Your task to perform on an android device: change the clock display to analog Image 0: 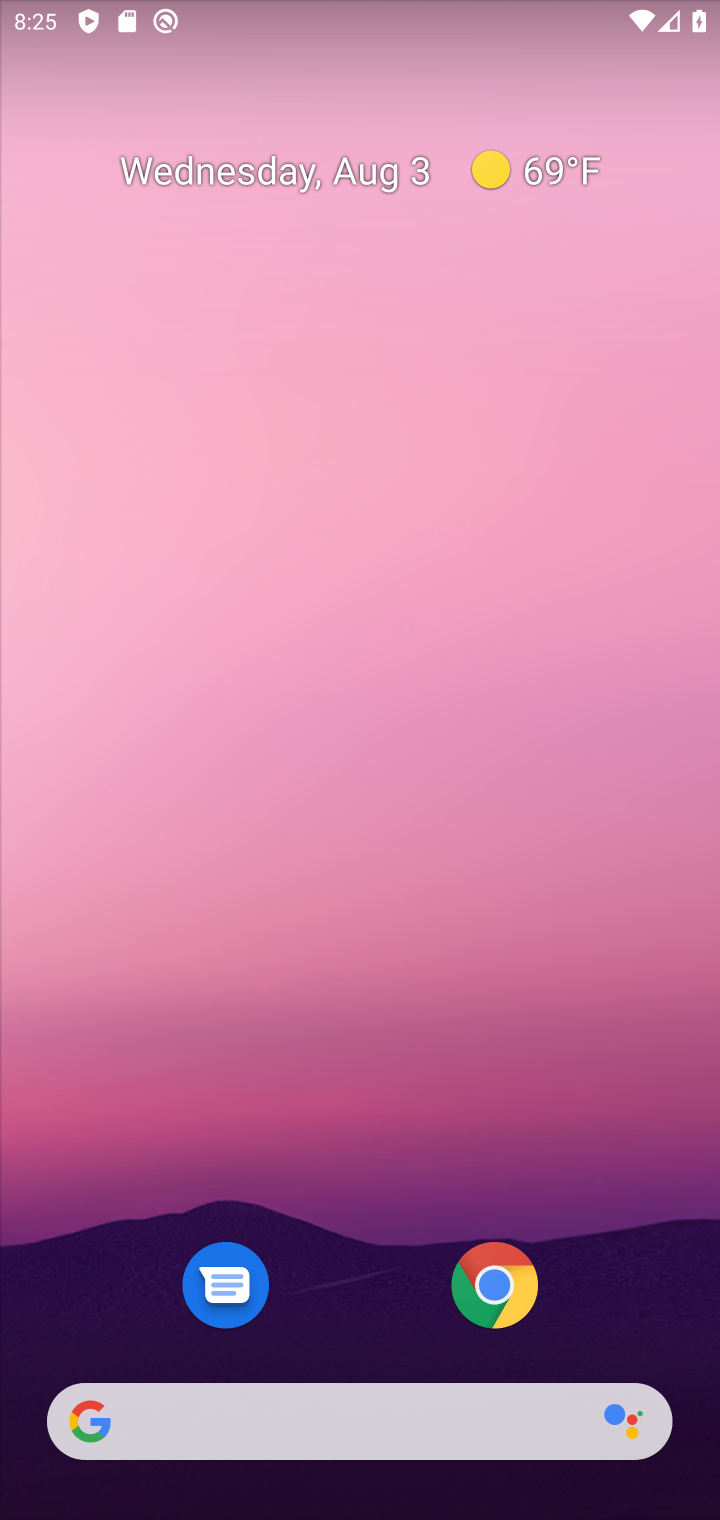
Step 0: drag from (658, 1225) to (539, 330)
Your task to perform on an android device: change the clock display to analog Image 1: 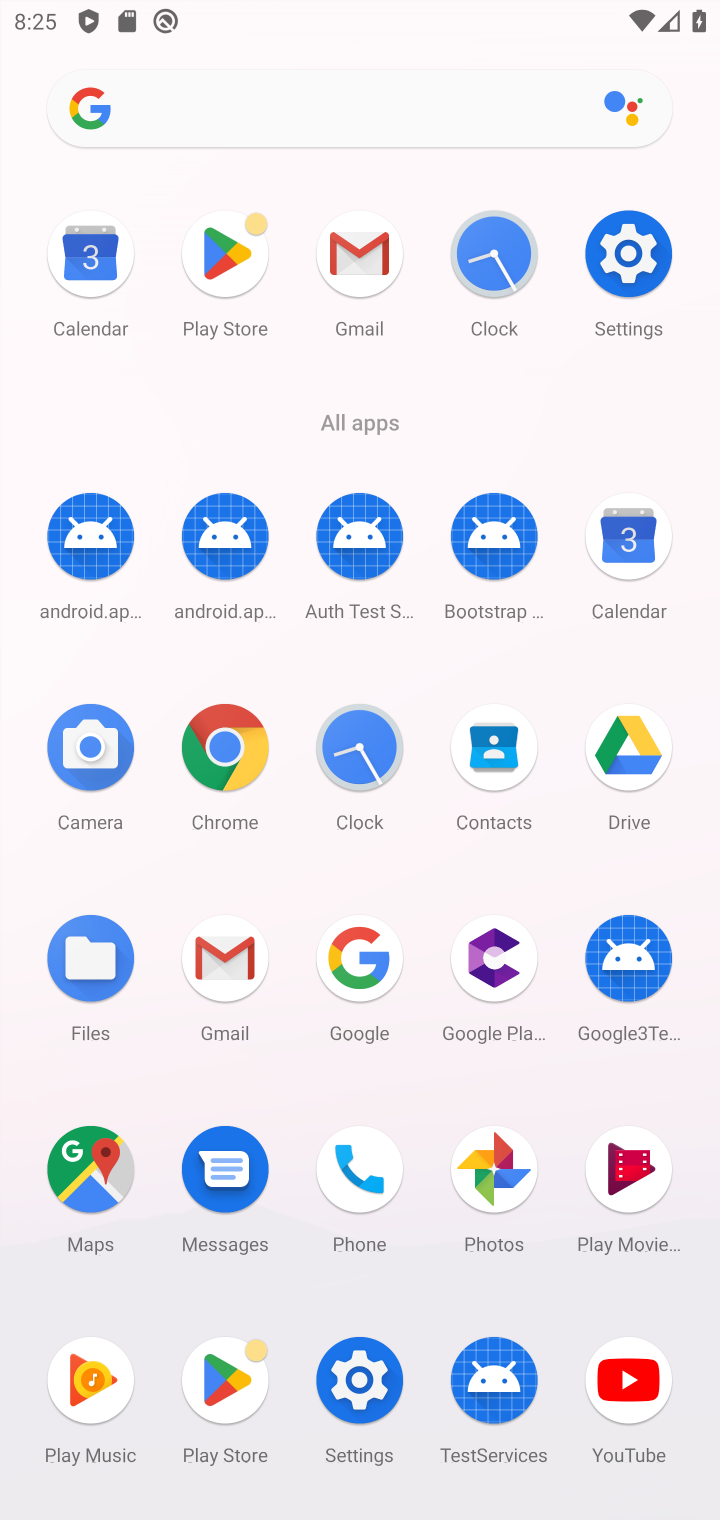
Step 1: click (506, 272)
Your task to perform on an android device: change the clock display to analog Image 2: 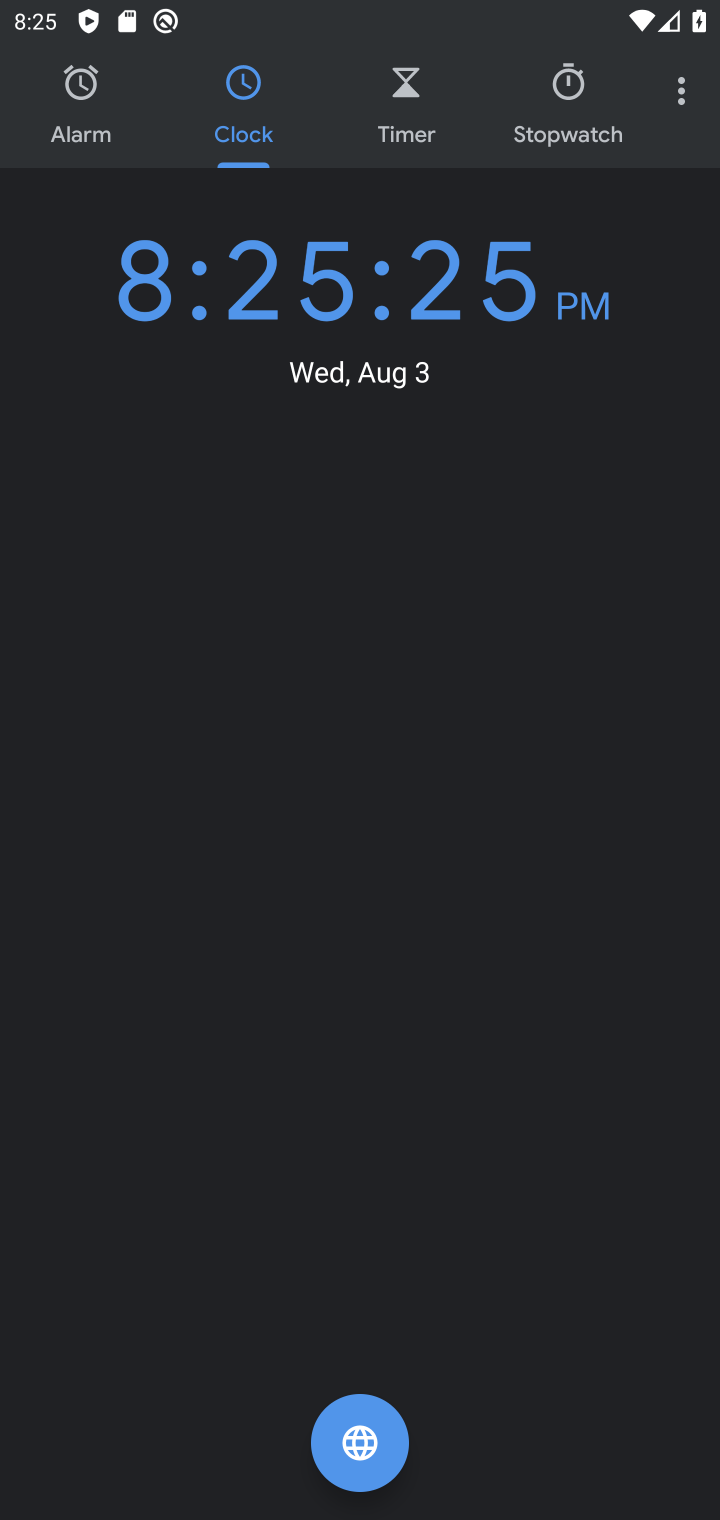
Step 2: click (709, 89)
Your task to perform on an android device: change the clock display to analog Image 3: 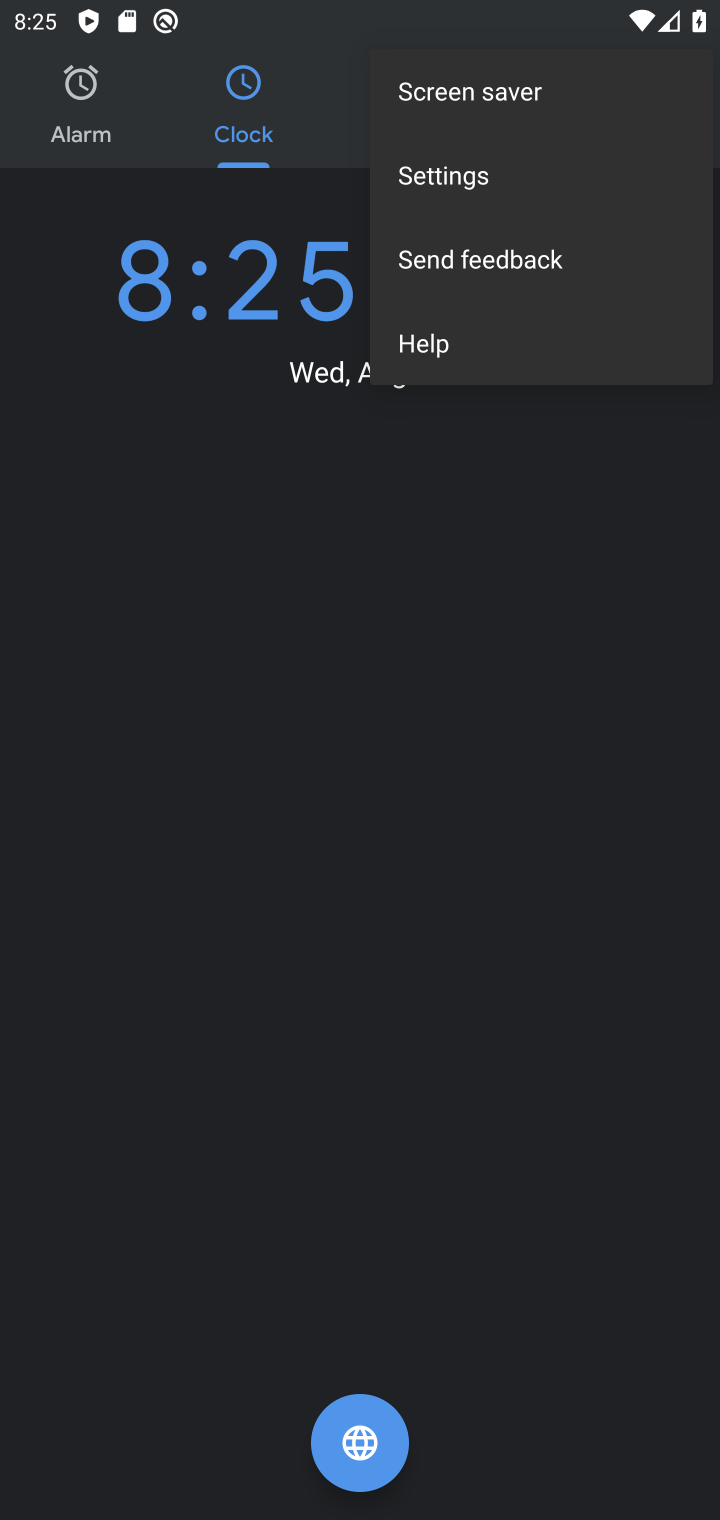
Step 3: click (539, 176)
Your task to perform on an android device: change the clock display to analog Image 4: 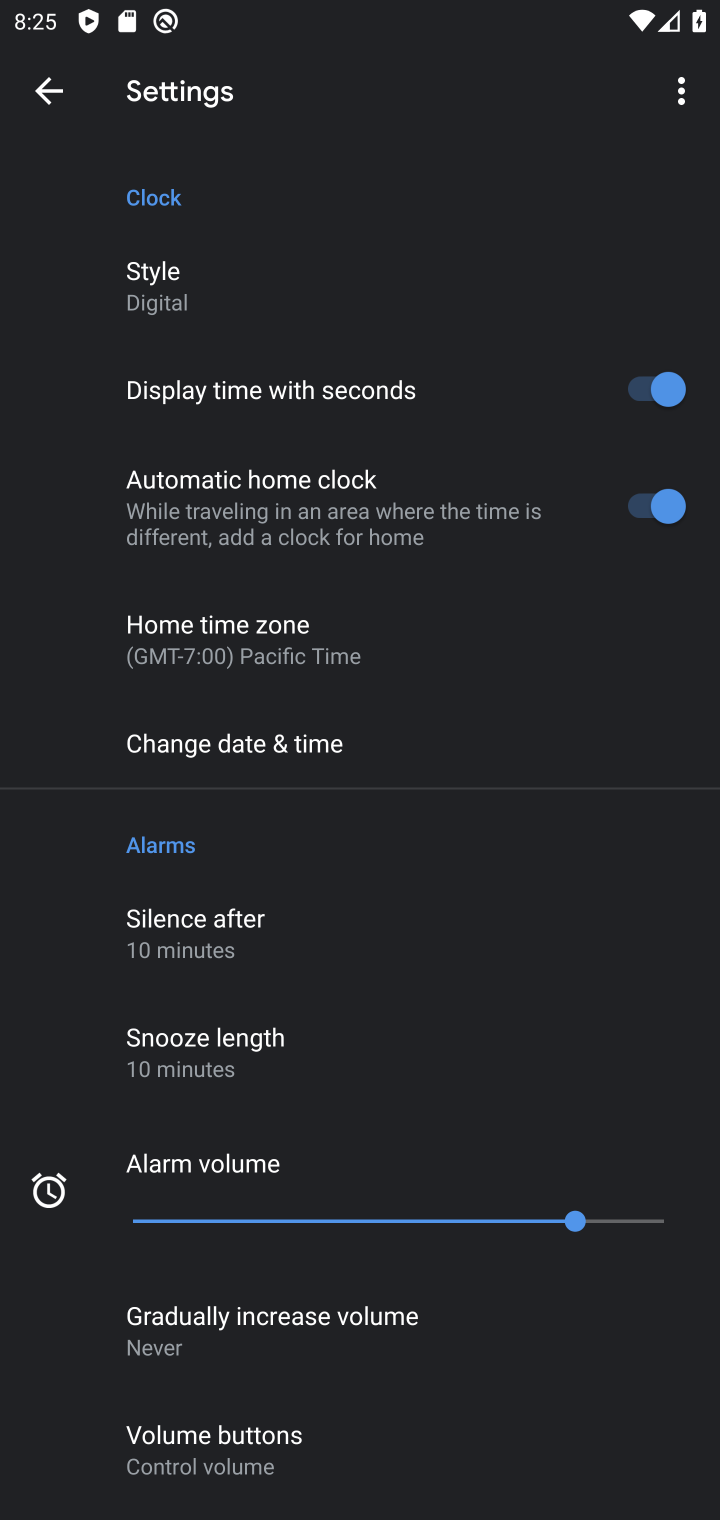
Step 4: click (332, 266)
Your task to perform on an android device: change the clock display to analog Image 5: 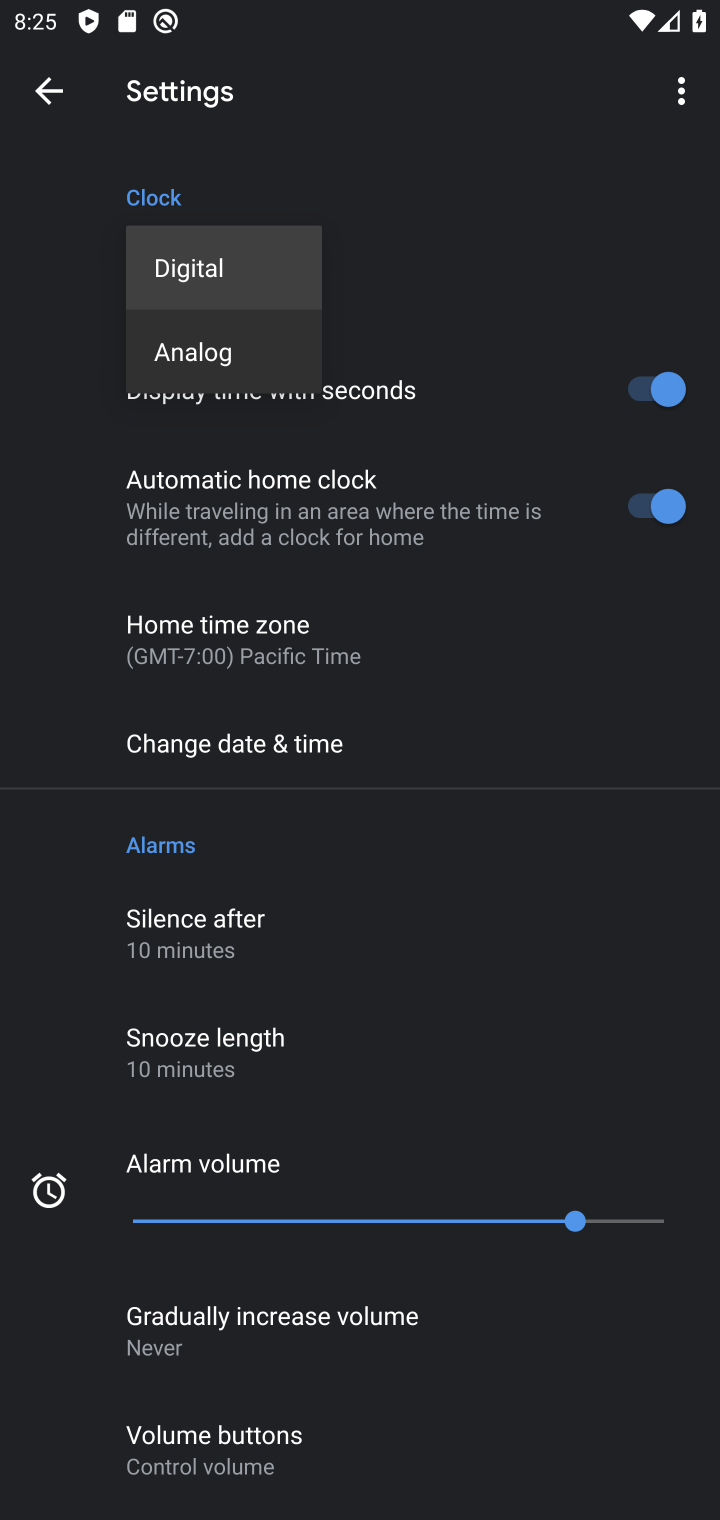
Step 5: click (203, 359)
Your task to perform on an android device: change the clock display to analog Image 6: 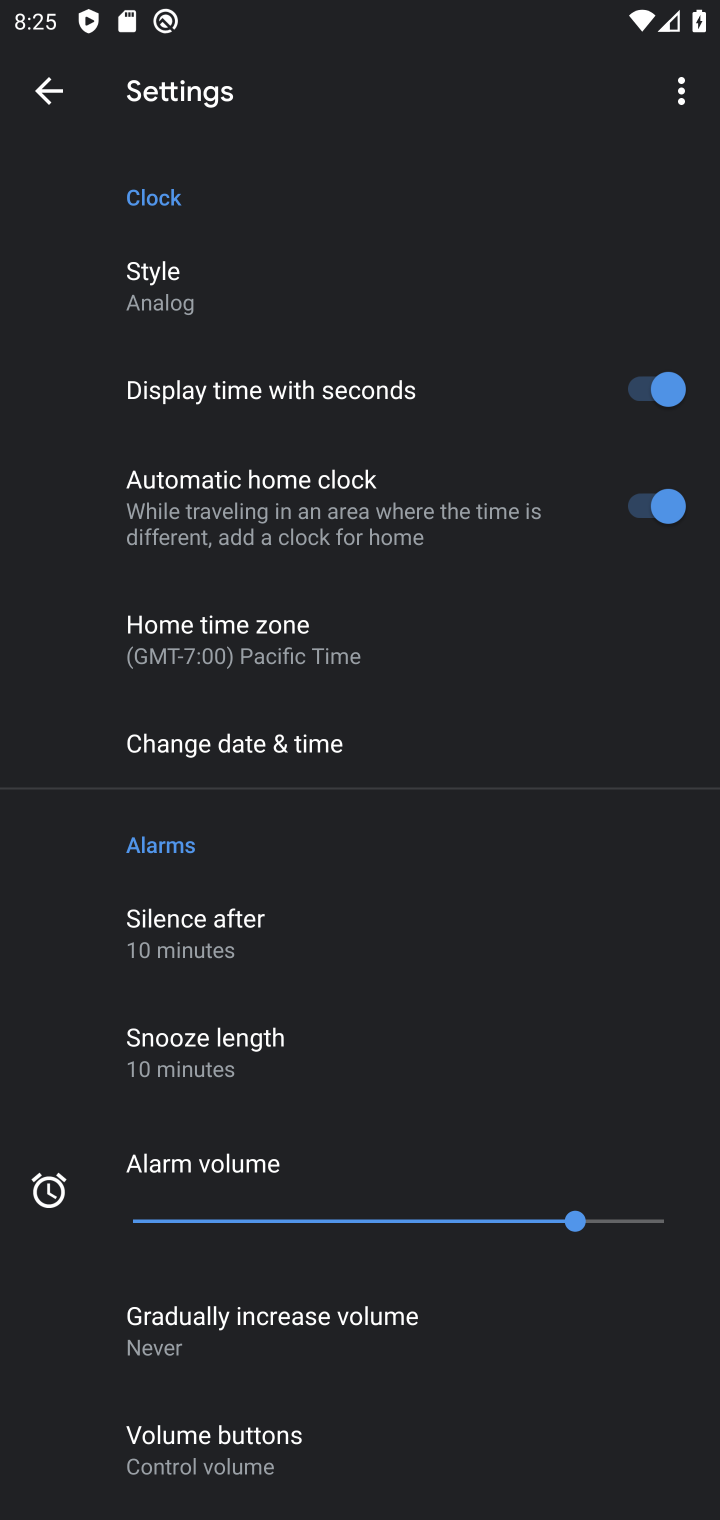
Step 6: task complete